Your task to perform on an android device: What is the news today? Image 0: 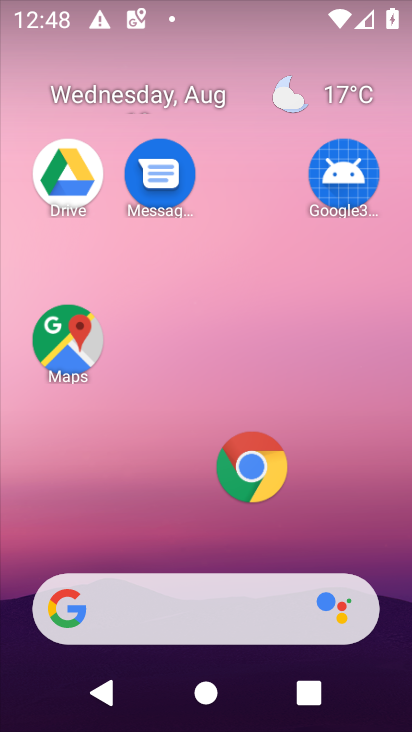
Step 0: click (161, 602)
Your task to perform on an android device: What is the news today? Image 1: 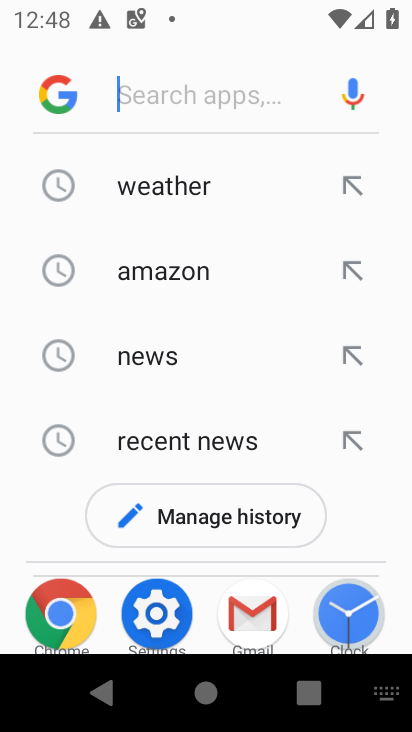
Step 1: click (134, 352)
Your task to perform on an android device: What is the news today? Image 2: 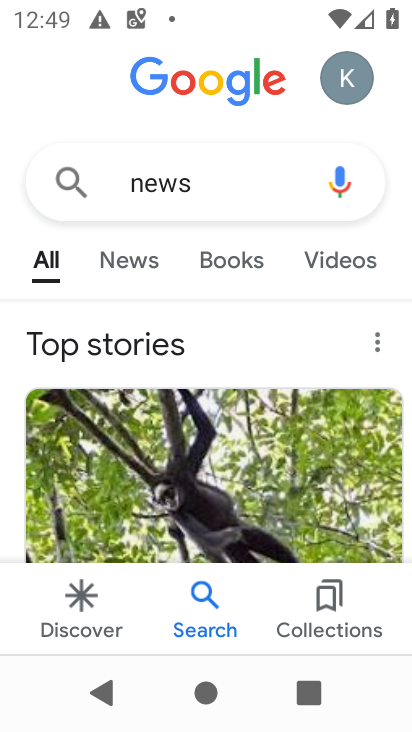
Step 2: task complete